Your task to perform on an android device: Open Reddit.com Image 0: 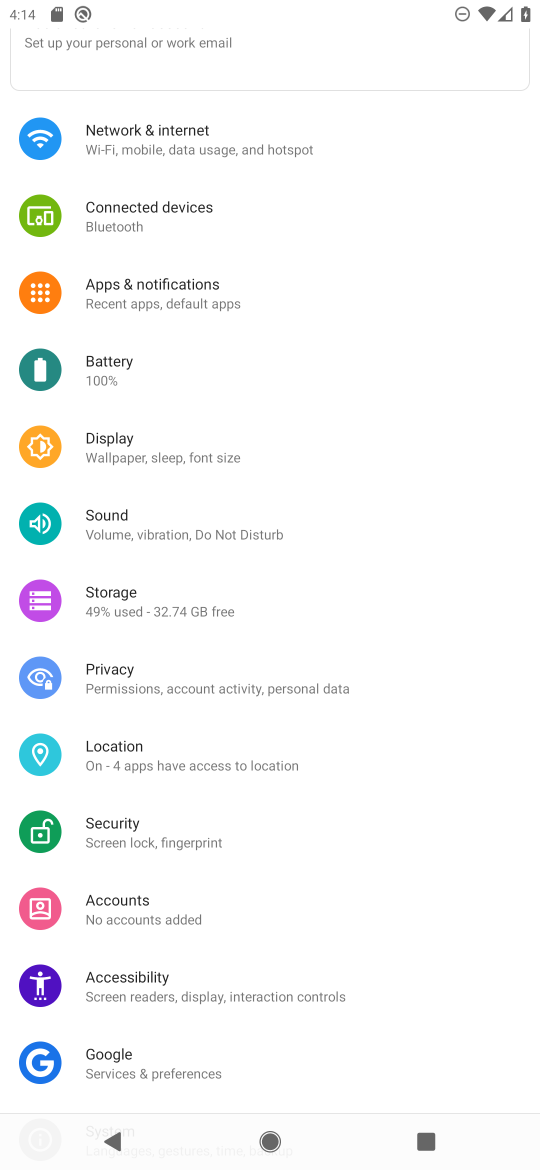
Step 0: press home button
Your task to perform on an android device: Open Reddit.com Image 1: 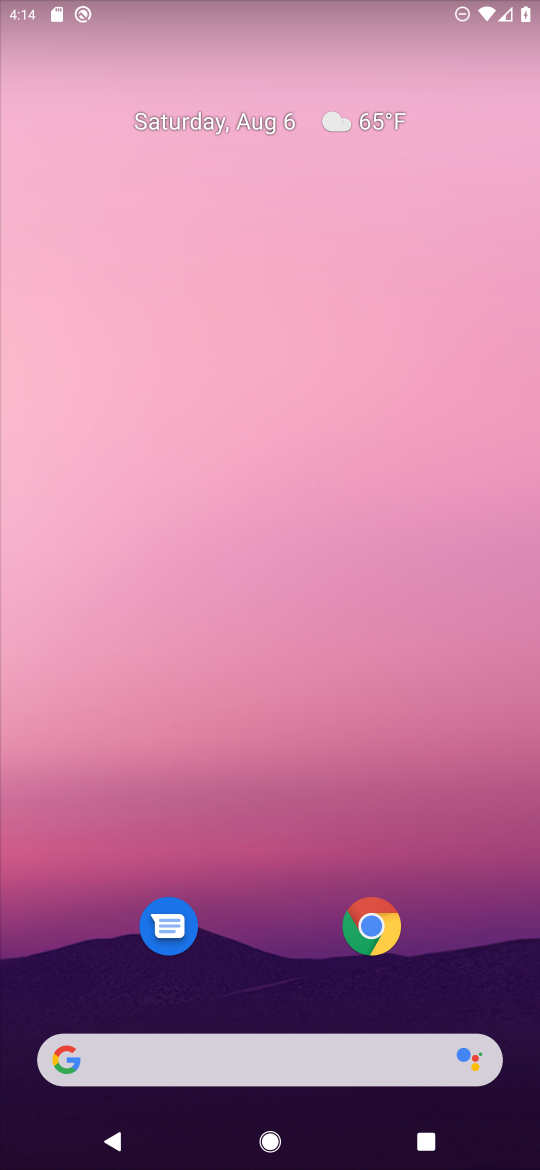
Step 1: click (359, 949)
Your task to perform on an android device: Open Reddit.com Image 2: 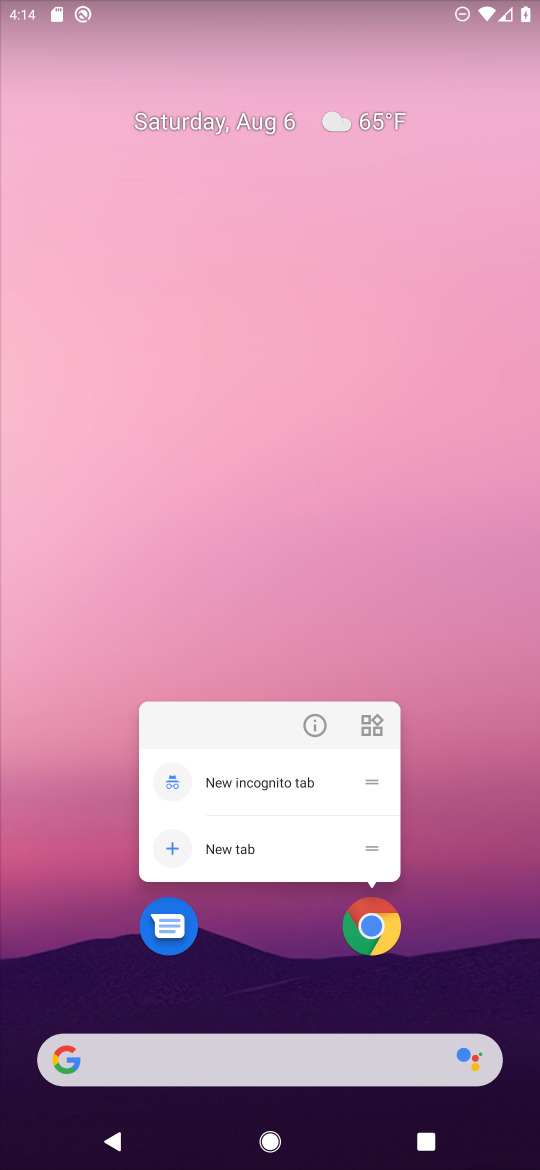
Step 2: click (357, 951)
Your task to perform on an android device: Open Reddit.com Image 3: 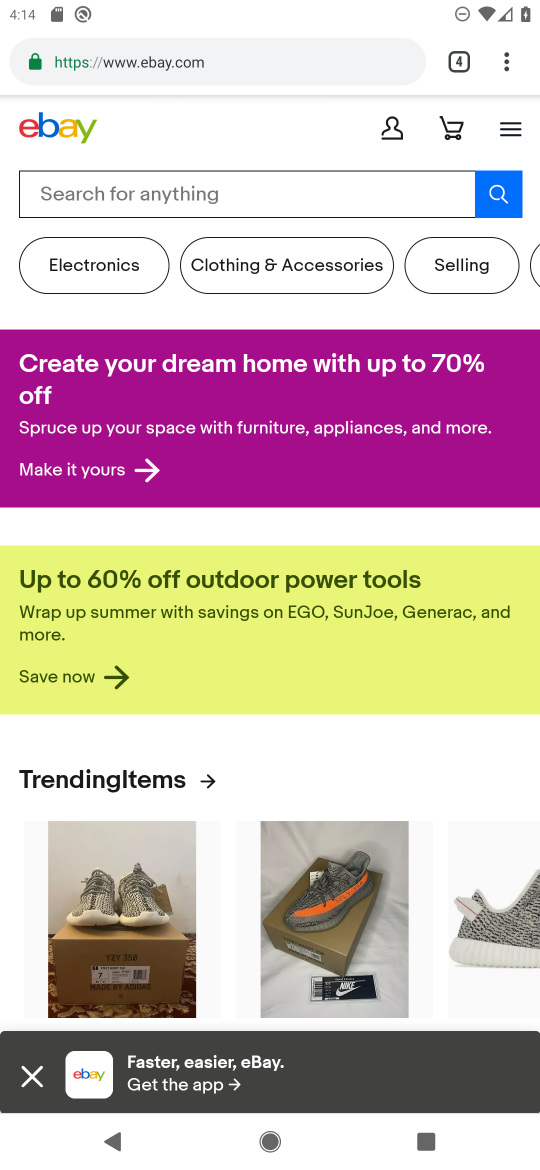
Step 3: click (233, 60)
Your task to perform on an android device: Open Reddit.com Image 4: 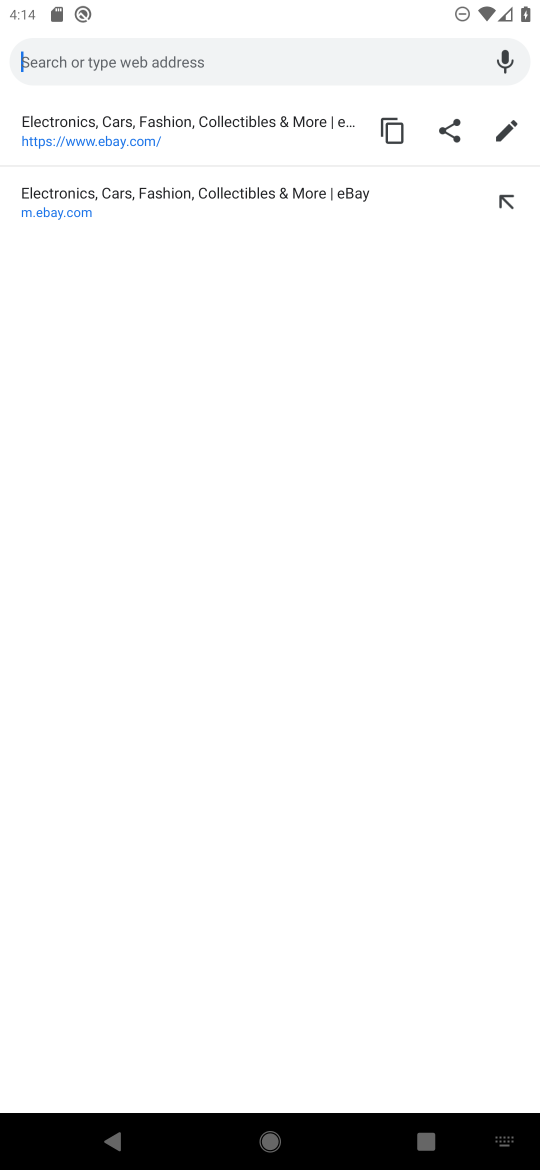
Step 4: click (314, 67)
Your task to perform on an android device: Open Reddit.com Image 5: 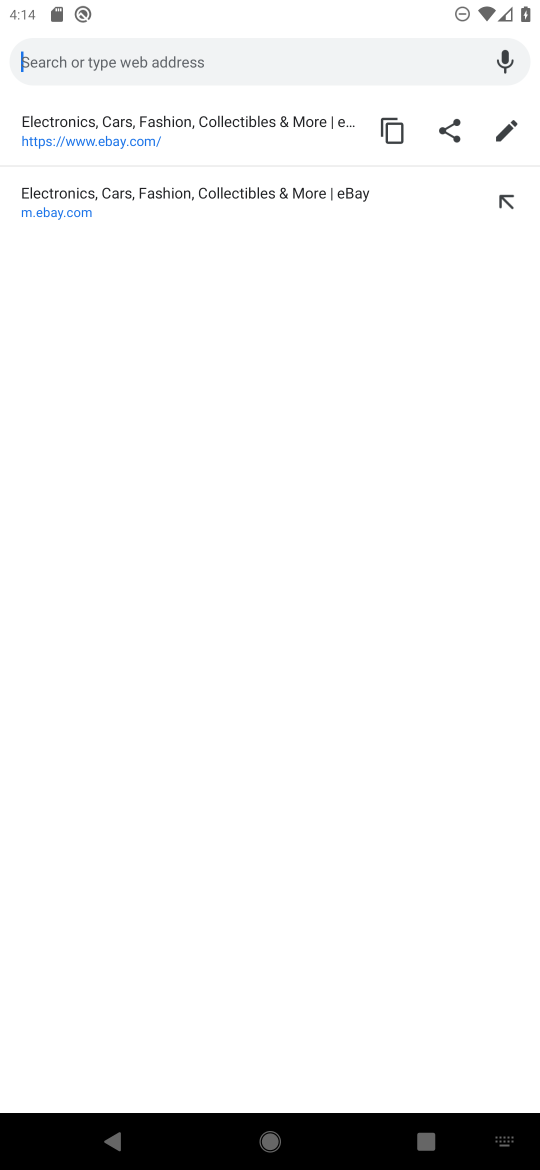
Step 5: type "Reddit.com"
Your task to perform on an android device: Open Reddit.com Image 6: 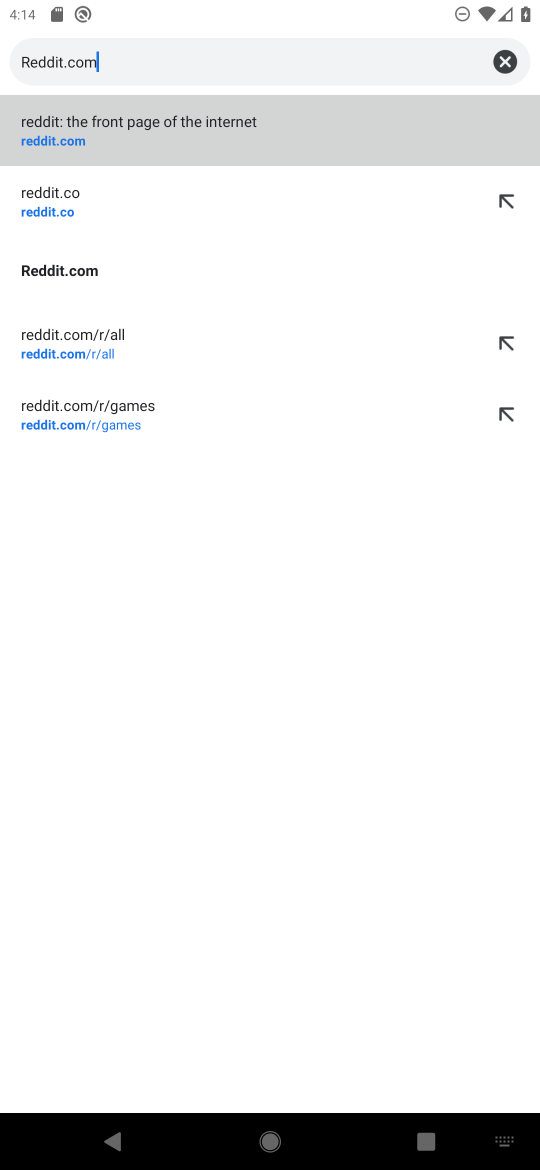
Step 6: type ""
Your task to perform on an android device: Open Reddit.com Image 7: 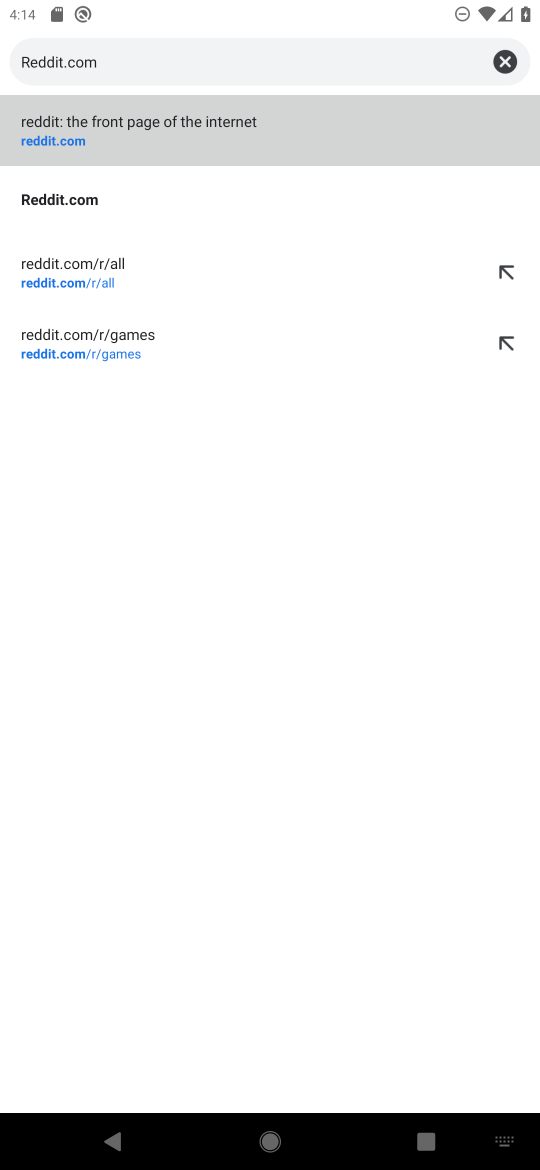
Step 7: click (174, 138)
Your task to perform on an android device: Open Reddit.com Image 8: 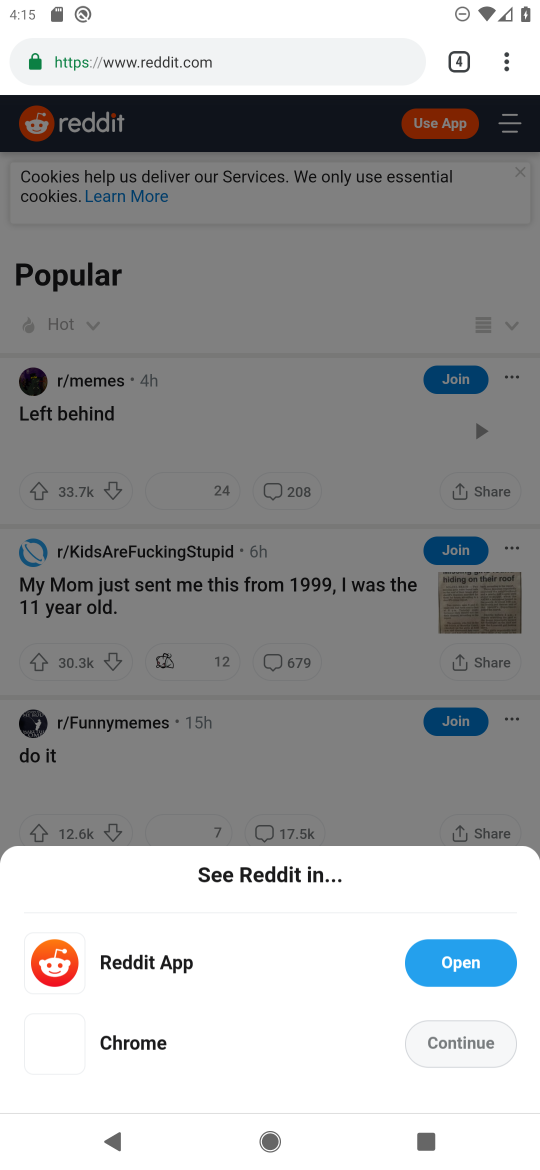
Step 8: task complete